Your task to perform on an android device: Go to network settings Image 0: 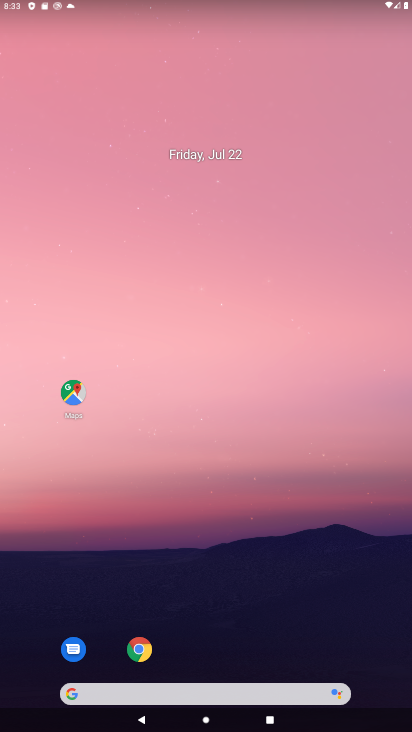
Step 0: drag from (329, 499) to (343, 132)
Your task to perform on an android device: Go to network settings Image 1: 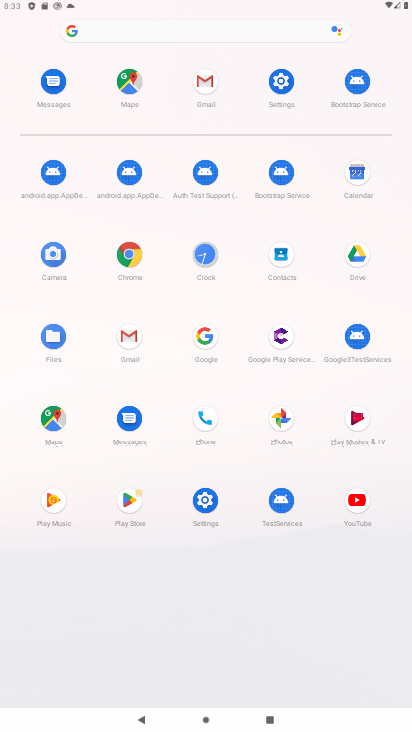
Step 1: click (214, 502)
Your task to perform on an android device: Go to network settings Image 2: 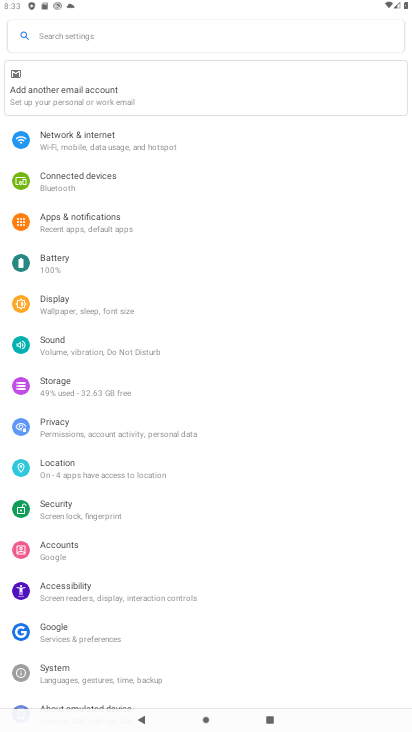
Step 2: click (88, 138)
Your task to perform on an android device: Go to network settings Image 3: 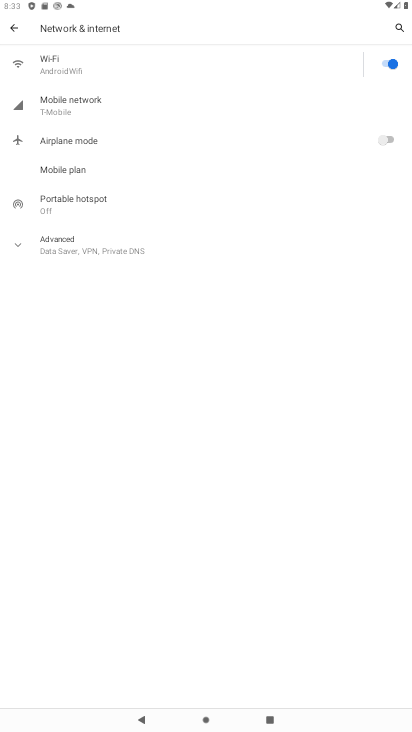
Step 3: task complete